Your task to perform on an android device: install app "Roku - Official Remote Control" Image 0: 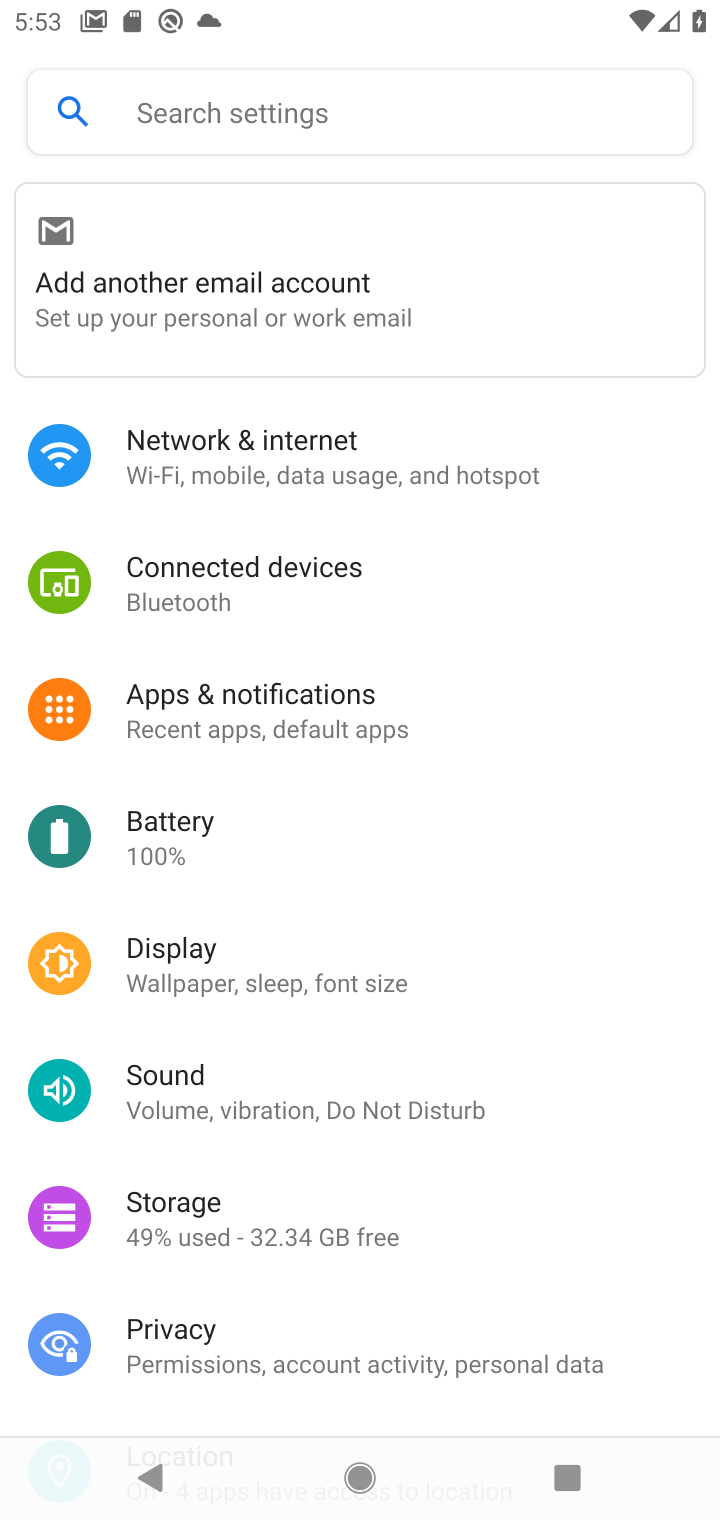
Step 0: drag from (189, 617) to (339, 1515)
Your task to perform on an android device: install app "Roku - Official Remote Control" Image 1: 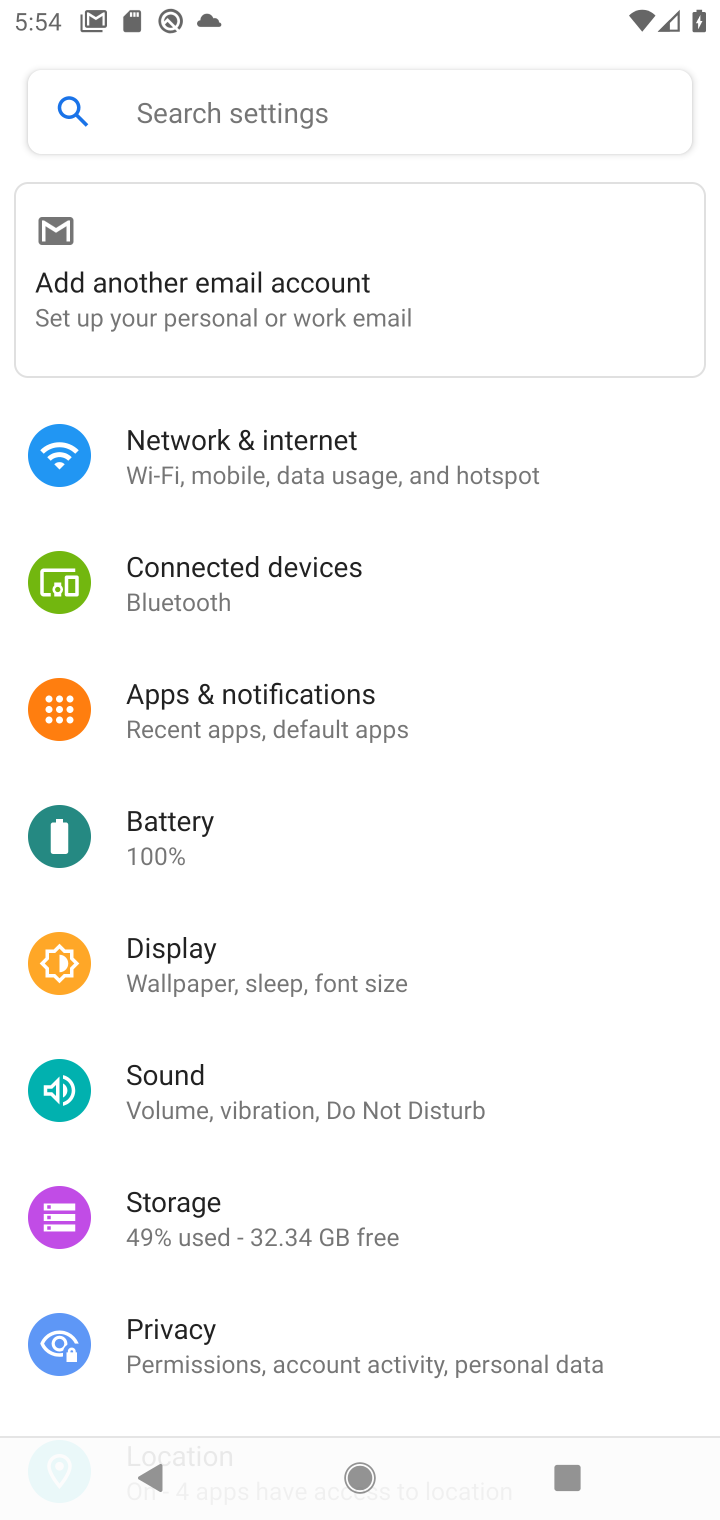
Step 1: press home button
Your task to perform on an android device: install app "Roku - Official Remote Control" Image 2: 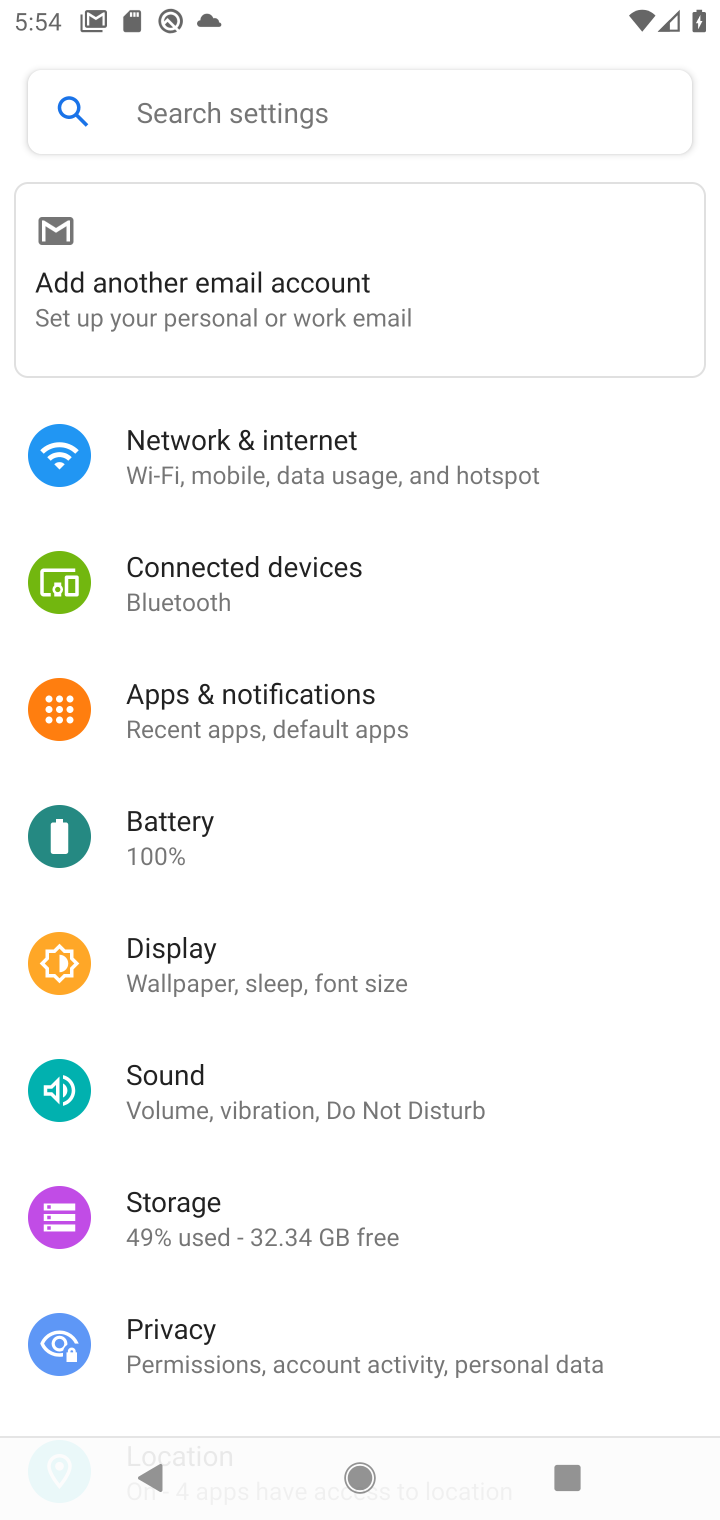
Step 2: drag from (266, 1377) to (510, 523)
Your task to perform on an android device: install app "Roku - Official Remote Control" Image 3: 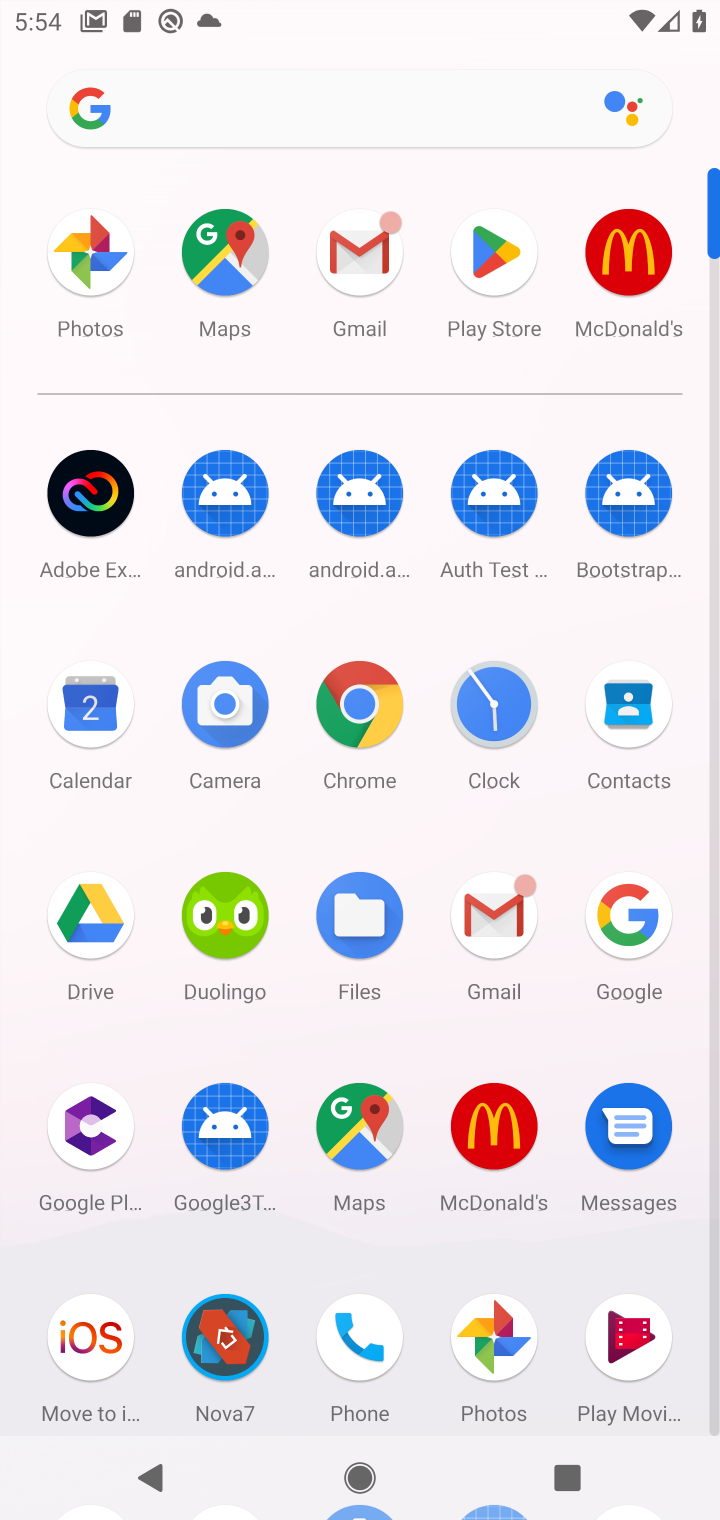
Step 3: click (471, 243)
Your task to perform on an android device: install app "Roku - Official Remote Control" Image 4: 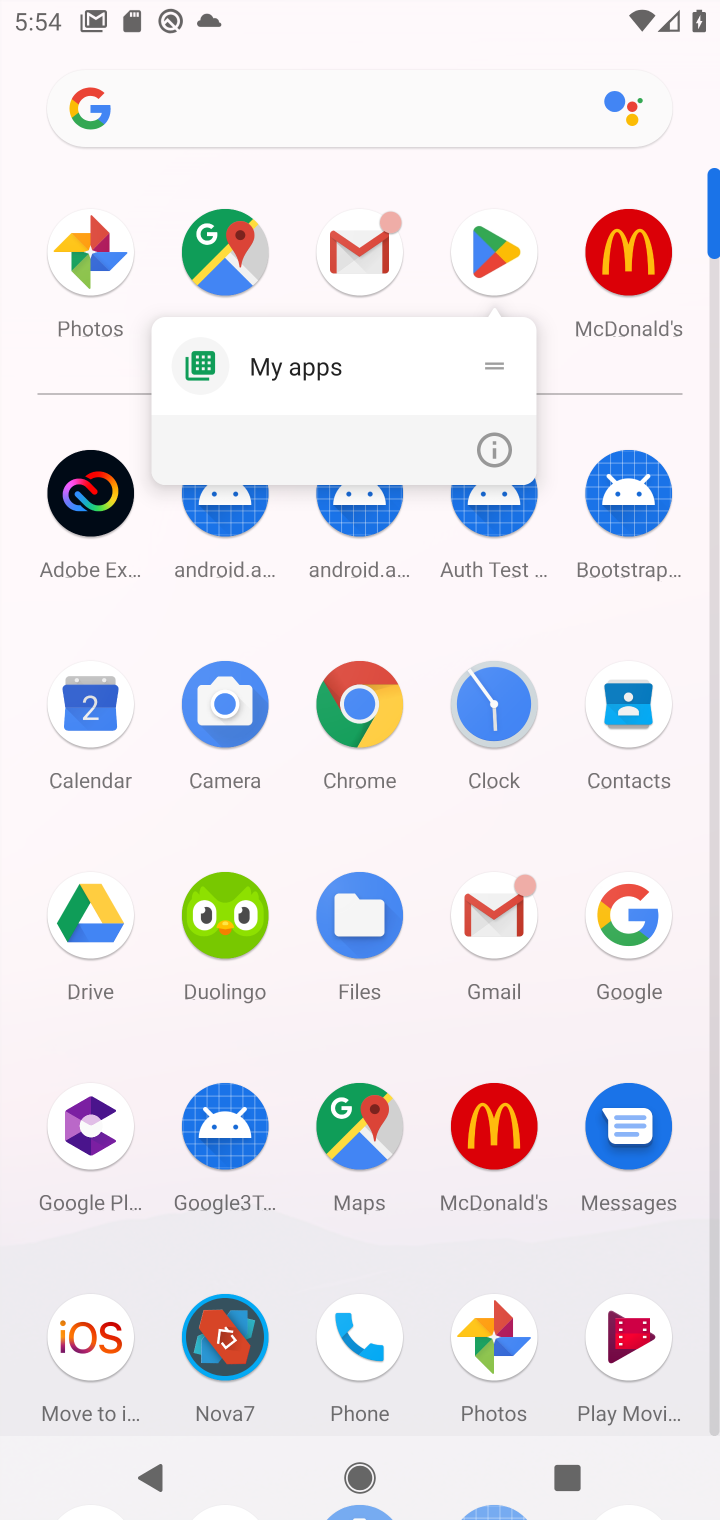
Step 4: click (480, 446)
Your task to perform on an android device: install app "Roku - Official Remote Control" Image 5: 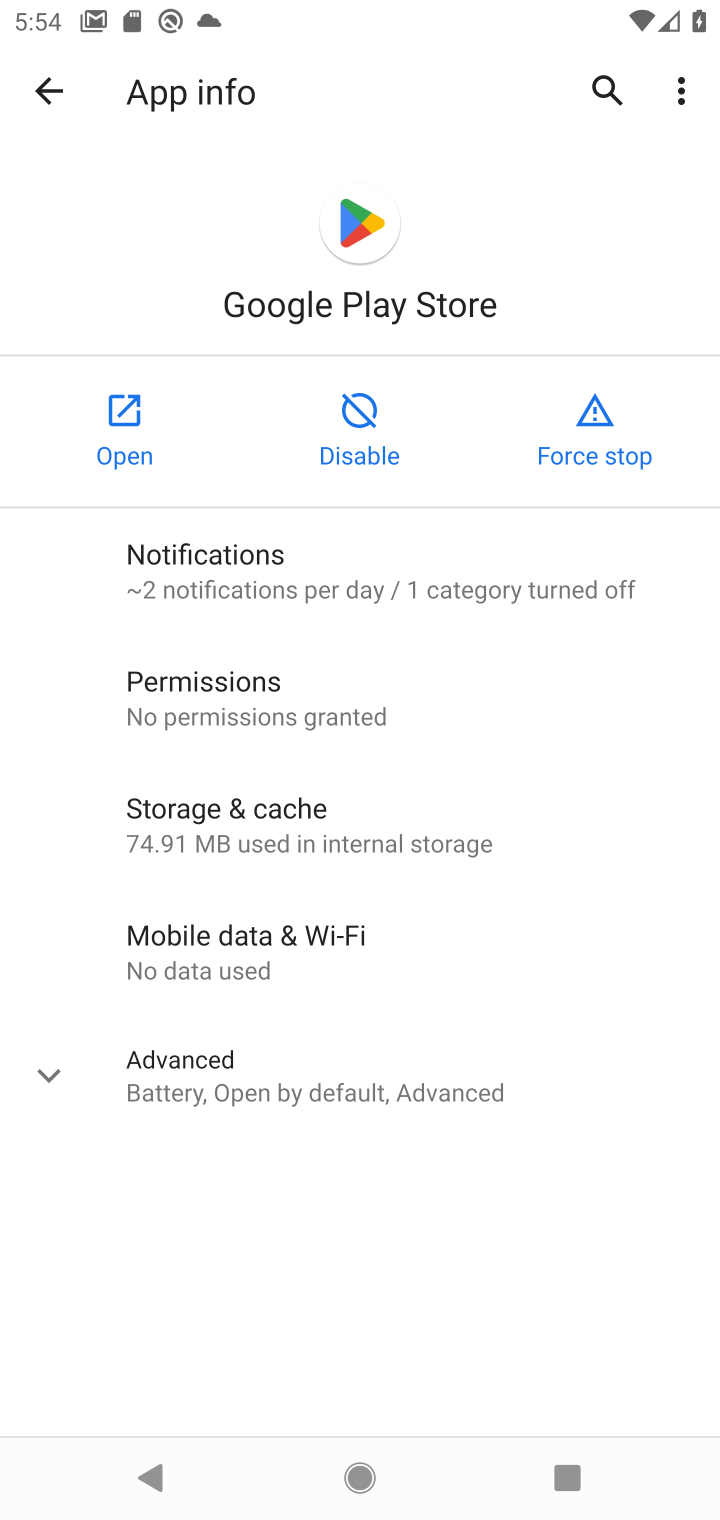
Step 5: click (93, 426)
Your task to perform on an android device: install app "Roku - Official Remote Control" Image 6: 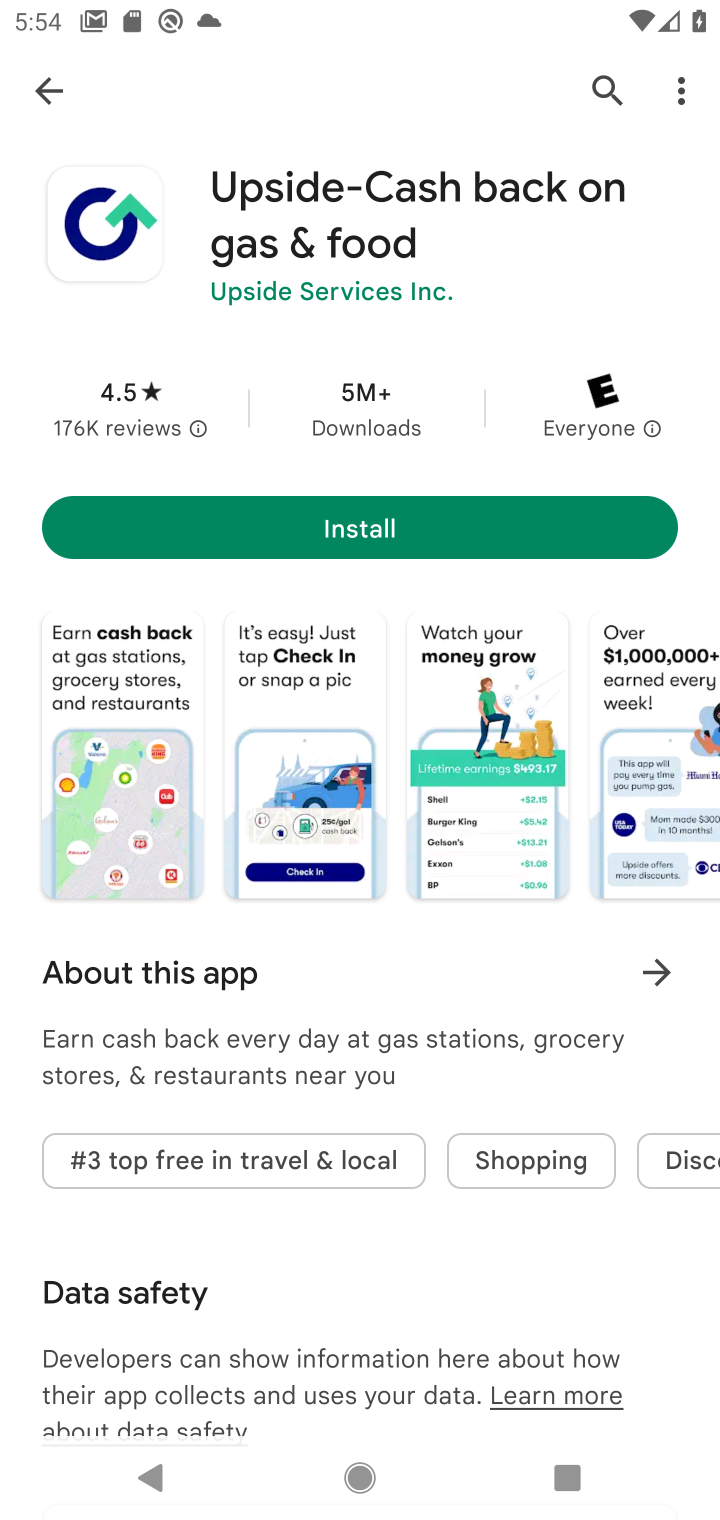
Step 6: click (599, 90)
Your task to perform on an android device: install app "Roku - Official Remote Control" Image 7: 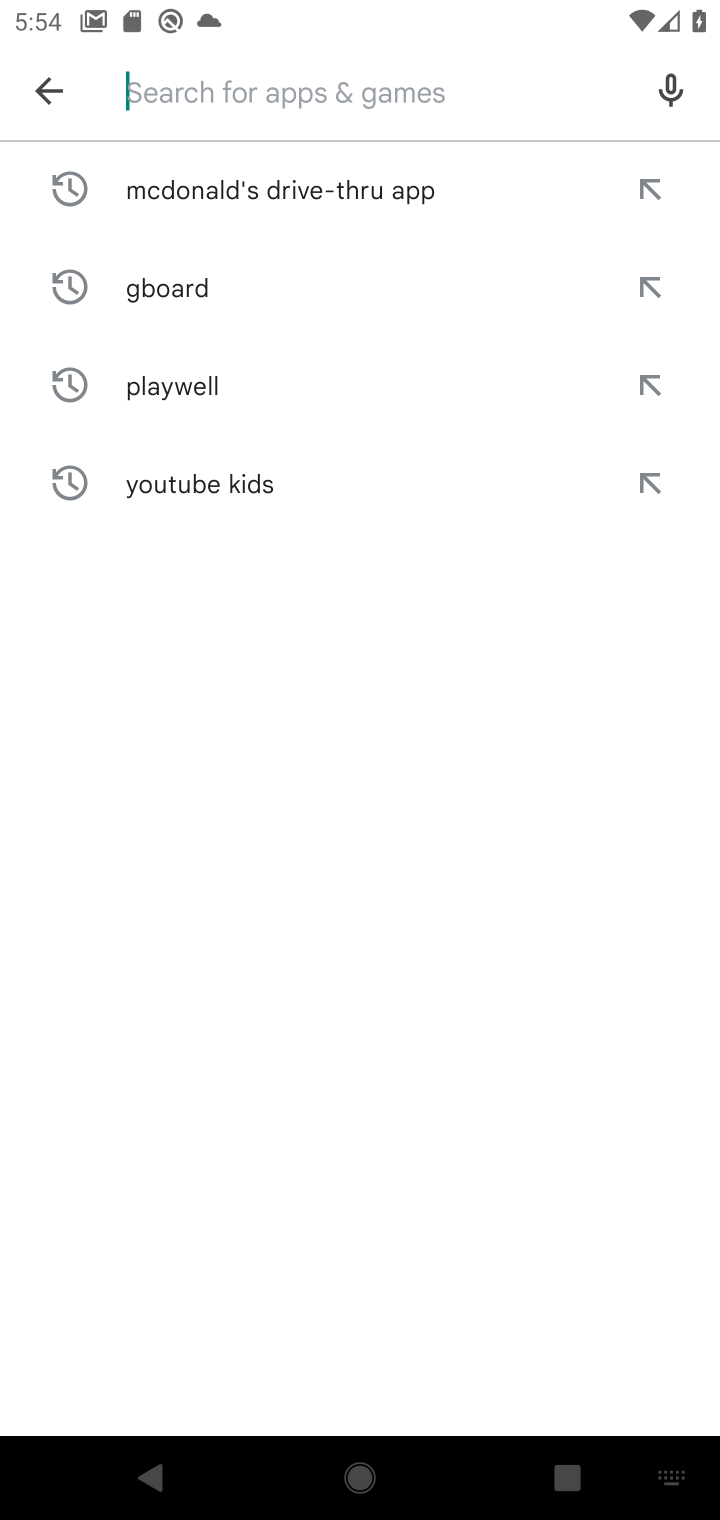
Step 7: click (399, 94)
Your task to perform on an android device: install app "Roku - Official Remote Control" Image 8: 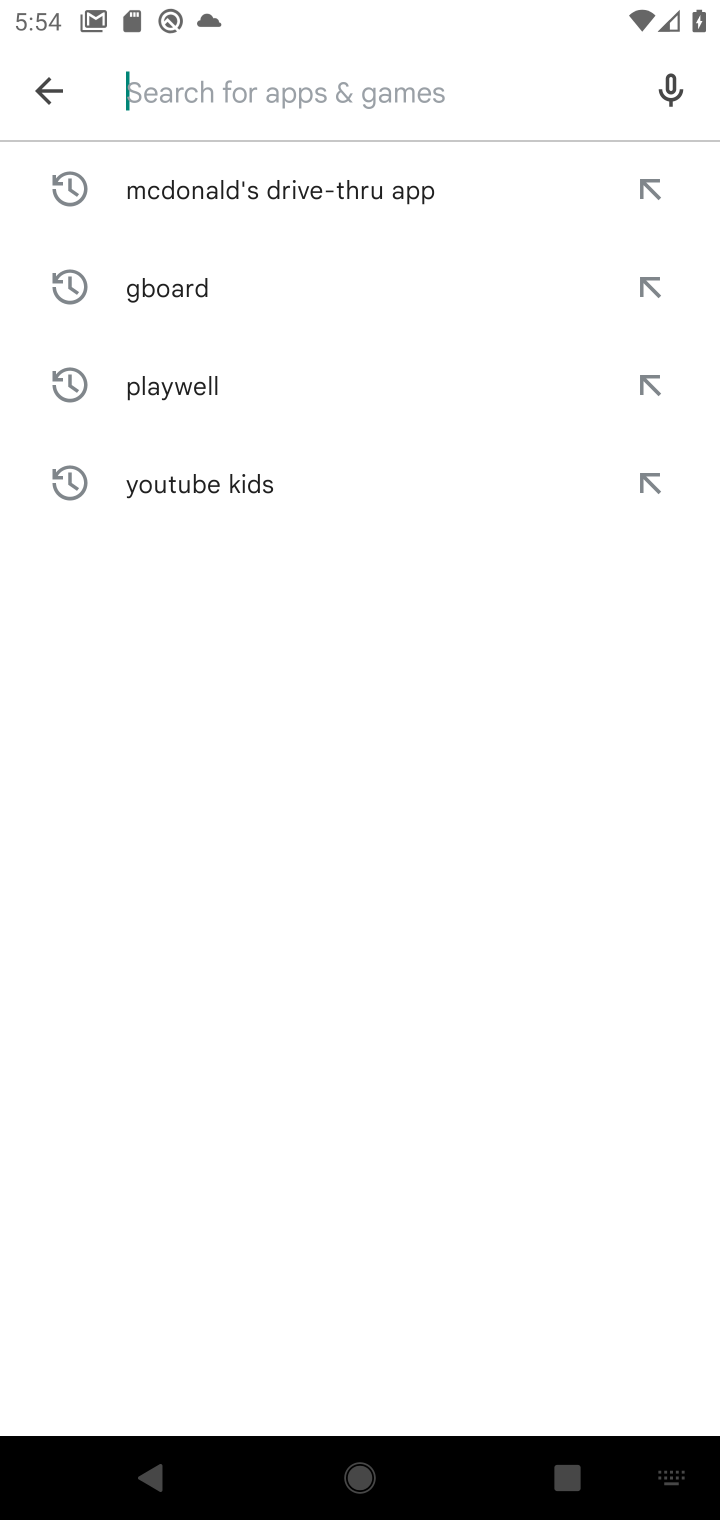
Step 8: type "Roku - Official Remote Control"
Your task to perform on an android device: install app "Roku - Official Remote Control" Image 9: 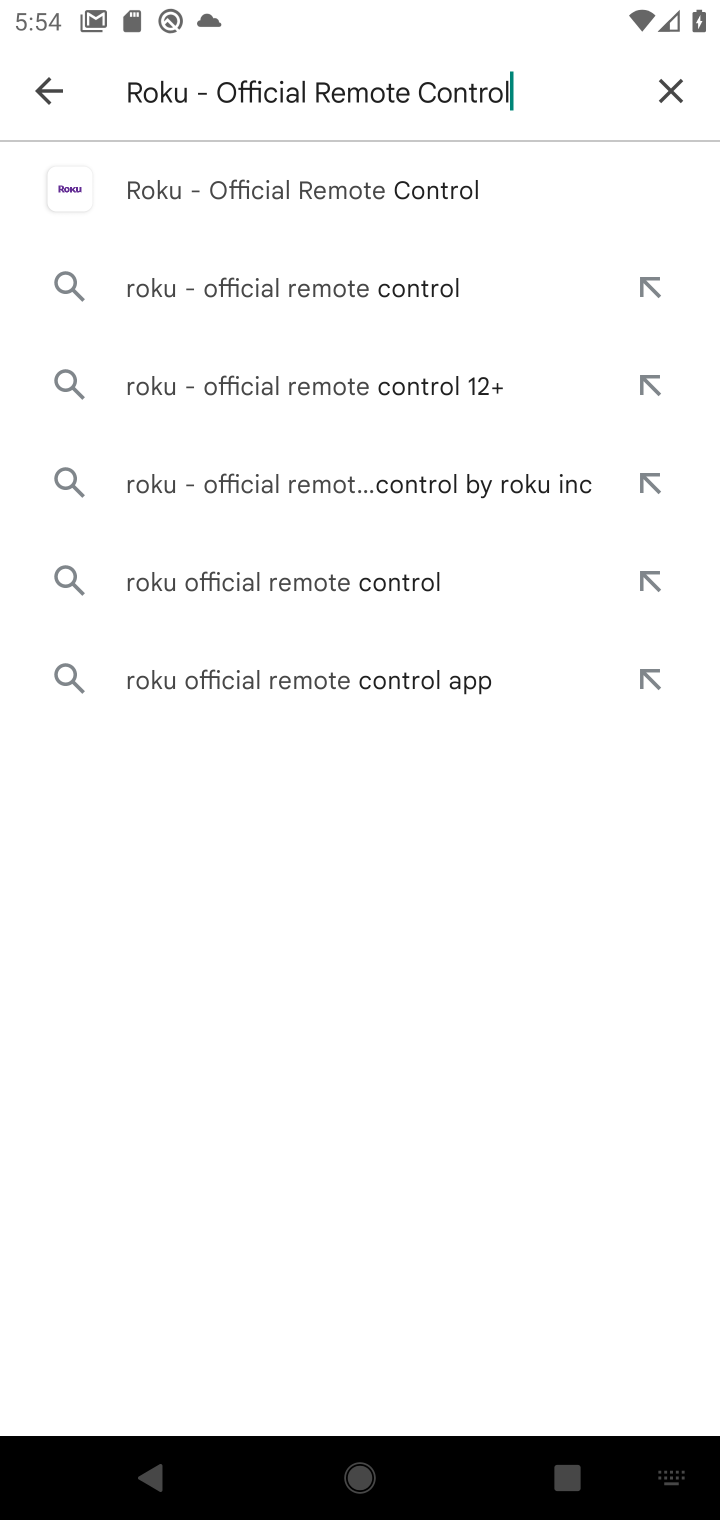
Step 9: type ""
Your task to perform on an android device: install app "Roku - Official Remote Control" Image 10: 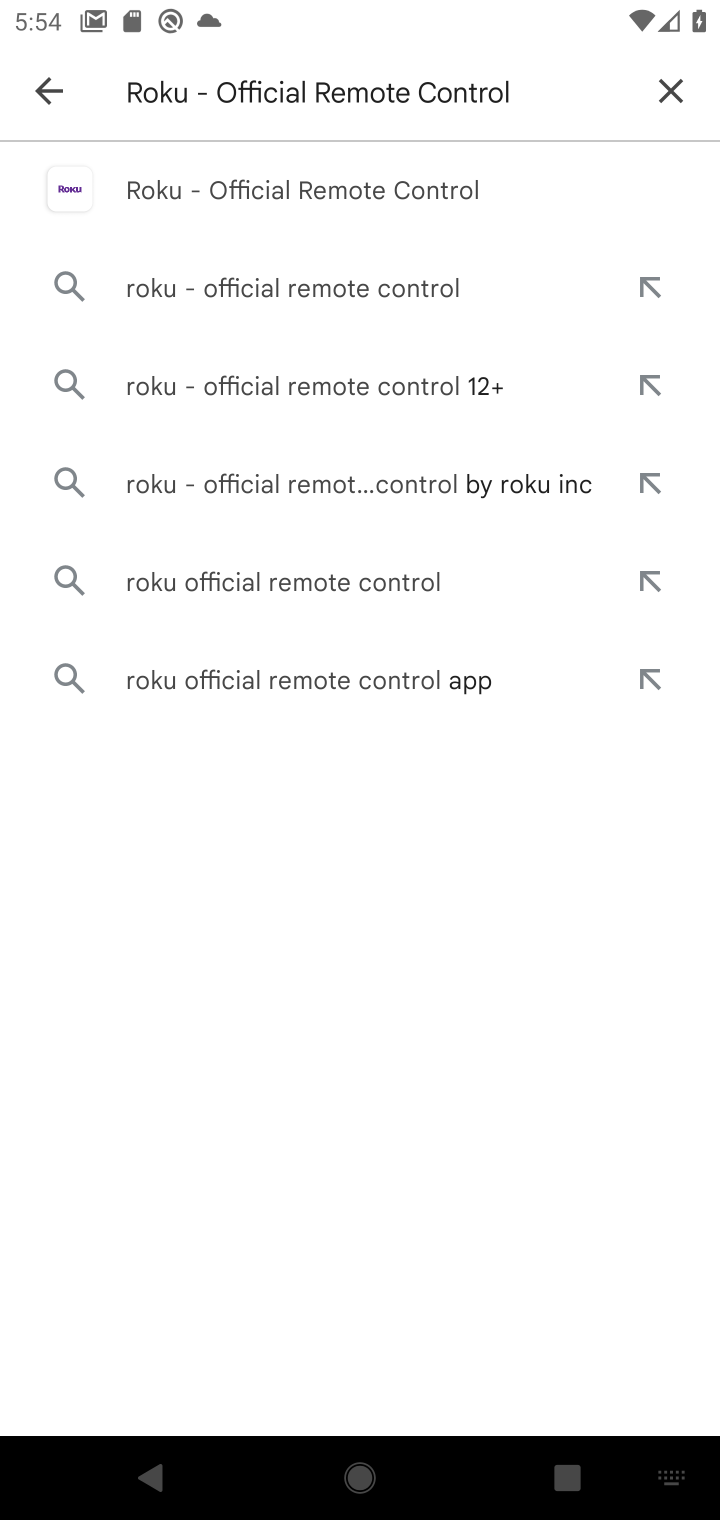
Step 10: click (155, 194)
Your task to perform on an android device: install app "Roku - Official Remote Control" Image 11: 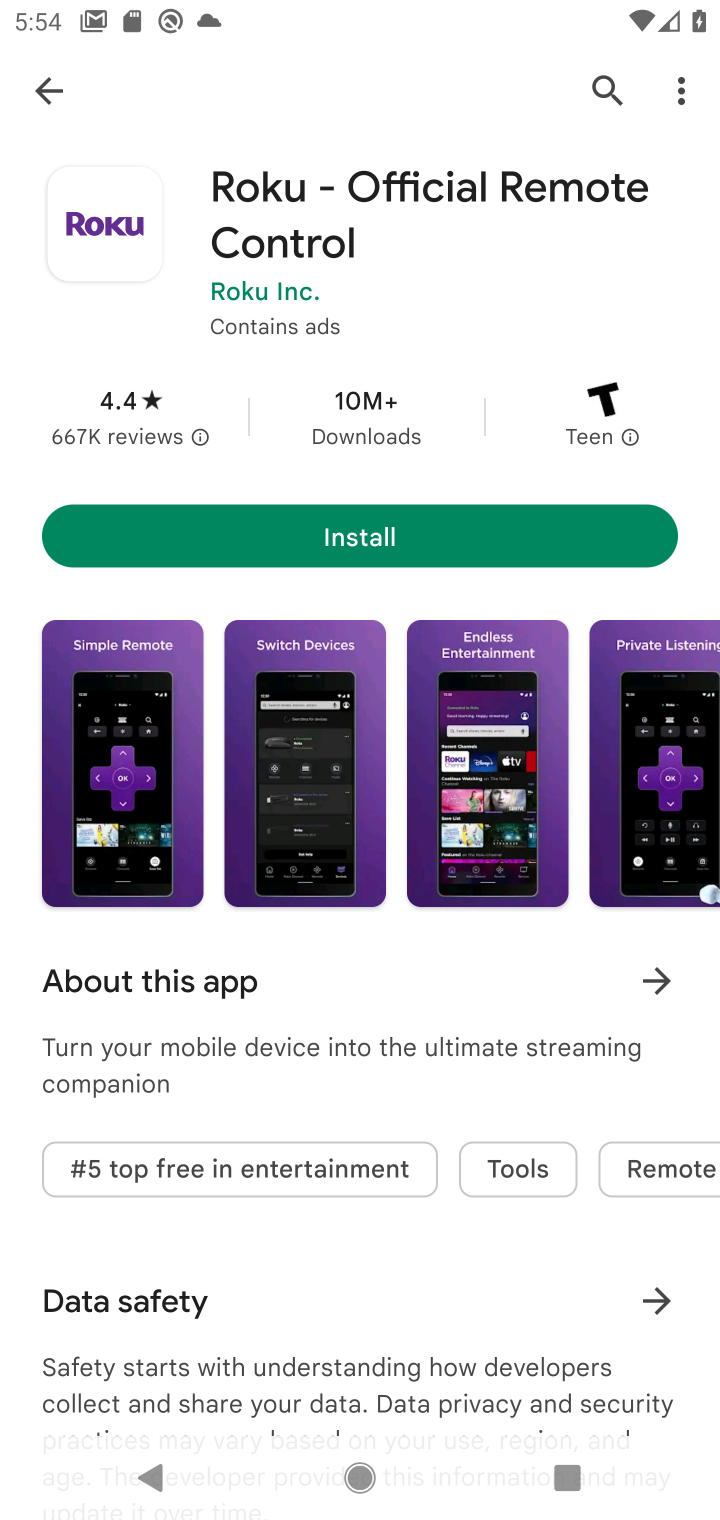
Step 11: drag from (308, 225) to (630, 1387)
Your task to perform on an android device: install app "Roku - Official Remote Control" Image 12: 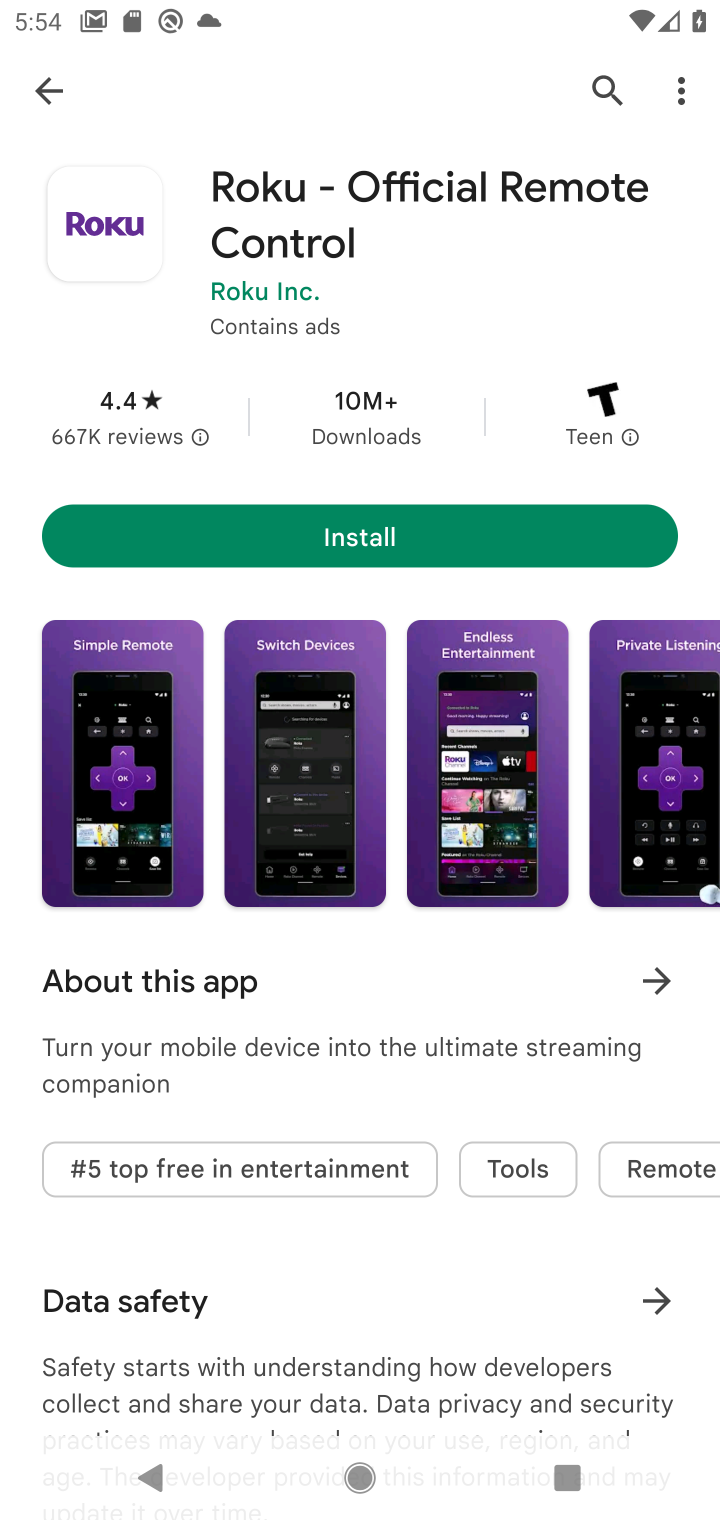
Step 12: click (252, 535)
Your task to perform on an android device: install app "Roku - Official Remote Control" Image 13: 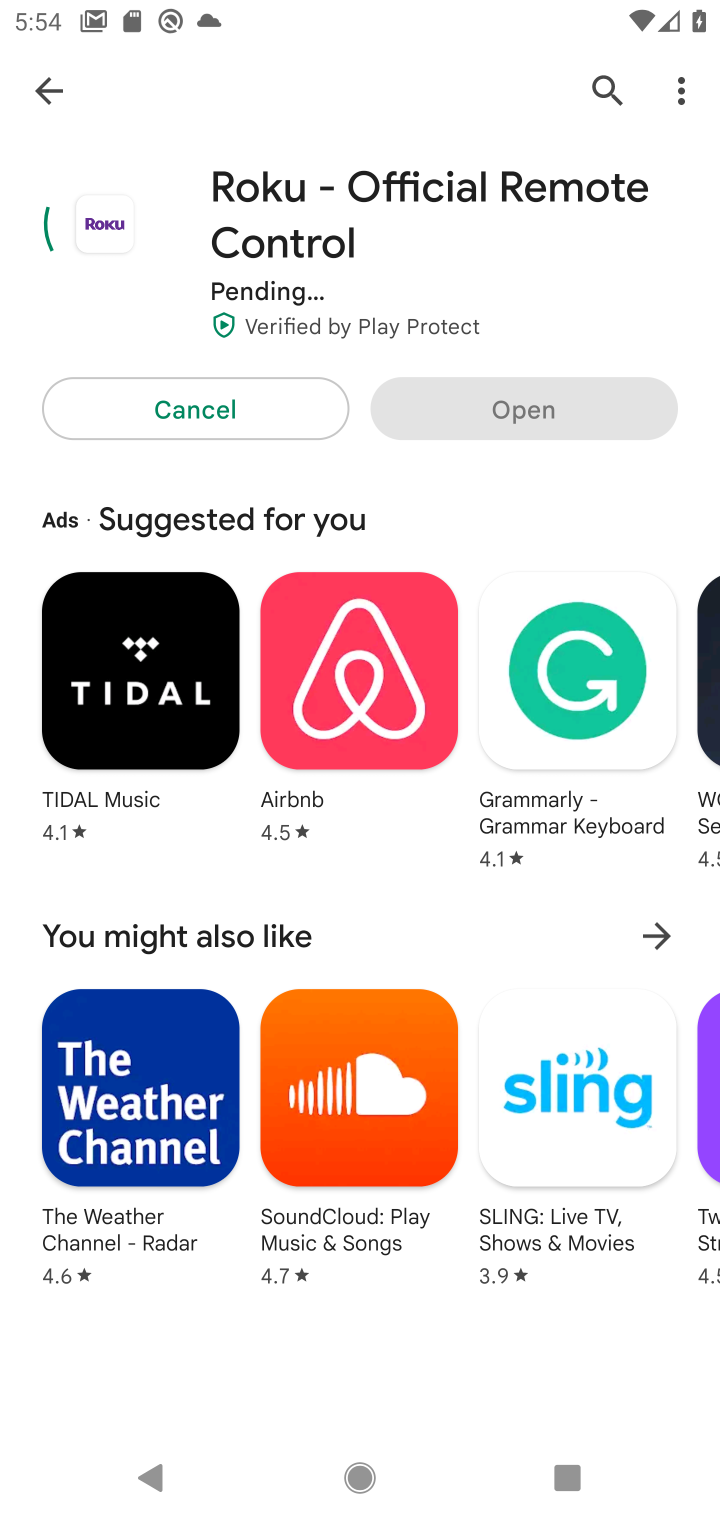
Step 13: task complete